Your task to perform on an android device: Add "logitech g502" to the cart on costco Image 0: 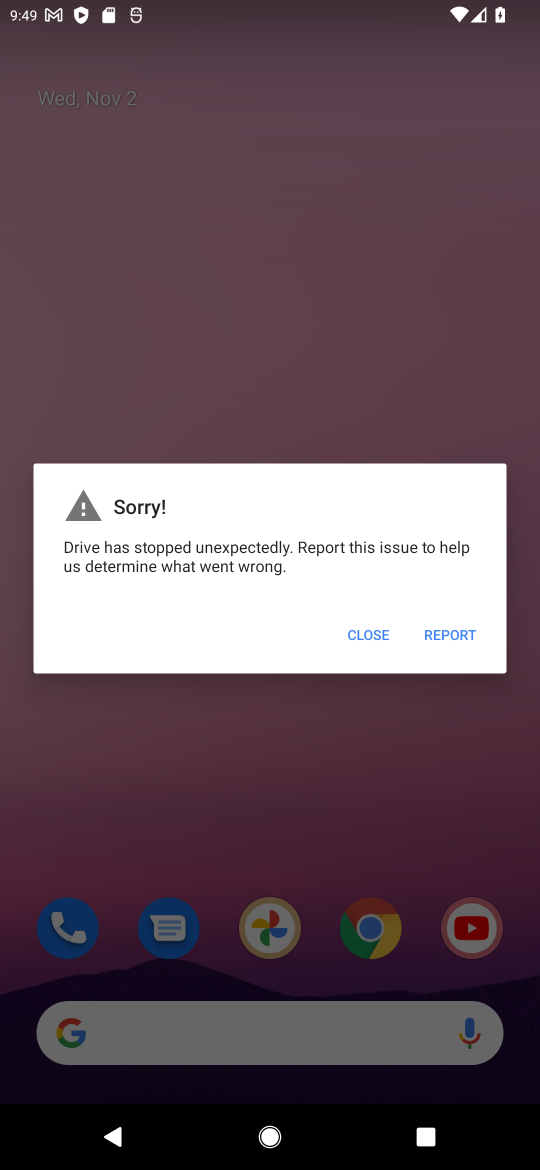
Step 0: press home button
Your task to perform on an android device: Add "logitech g502" to the cart on costco Image 1: 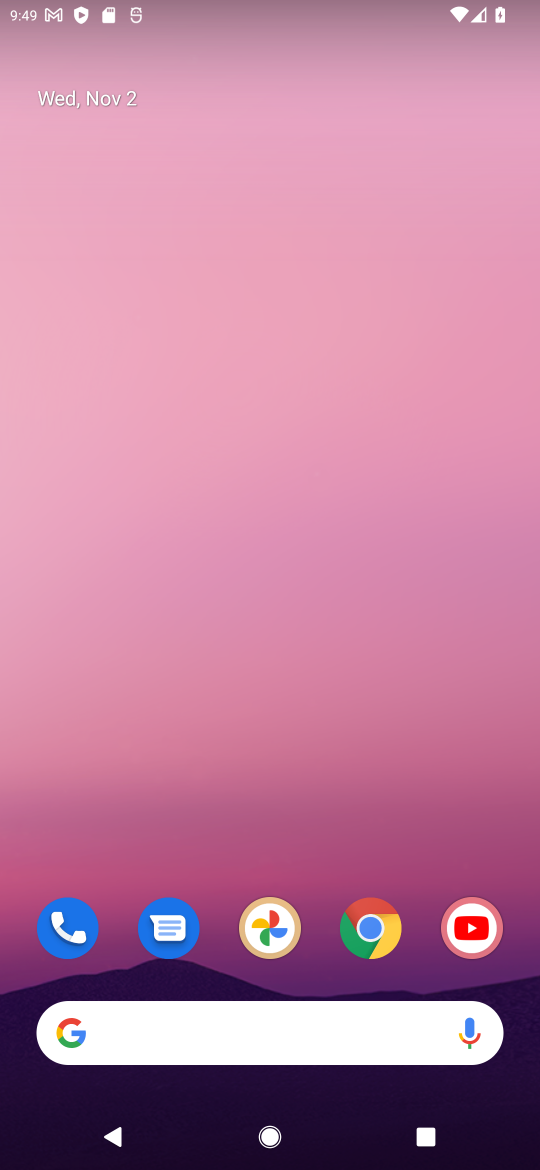
Step 1: drag from (265, 867) to (277, 352)
Your task to perform on an android device: Add "logitech g502" to the cart on costco Image 2: 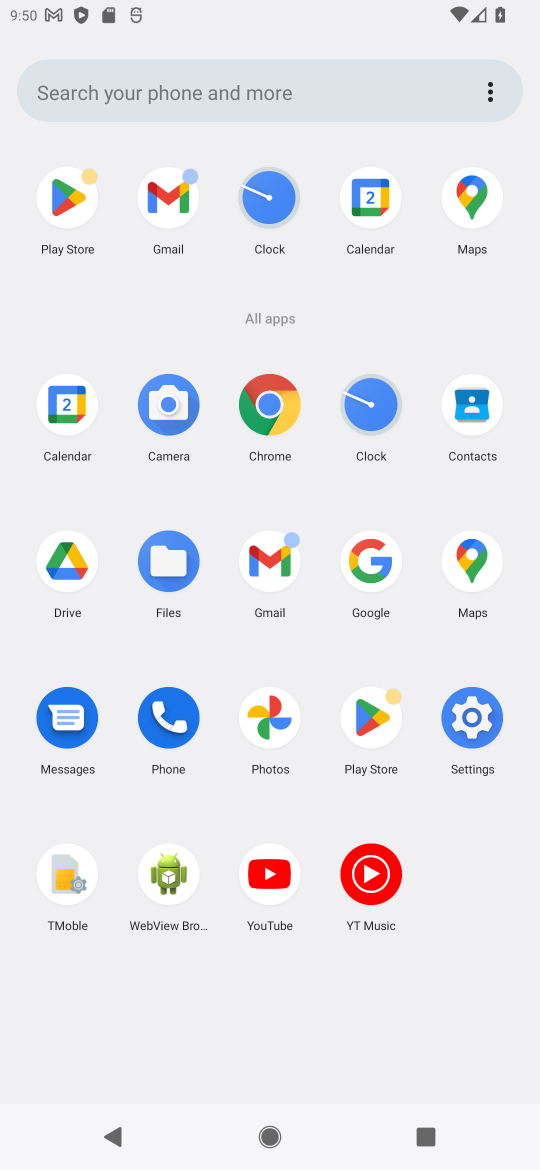
Step 2: click (377, 571)
Your task to perform on an android device: Add "logitech g502" to the cart on costco Image 3: 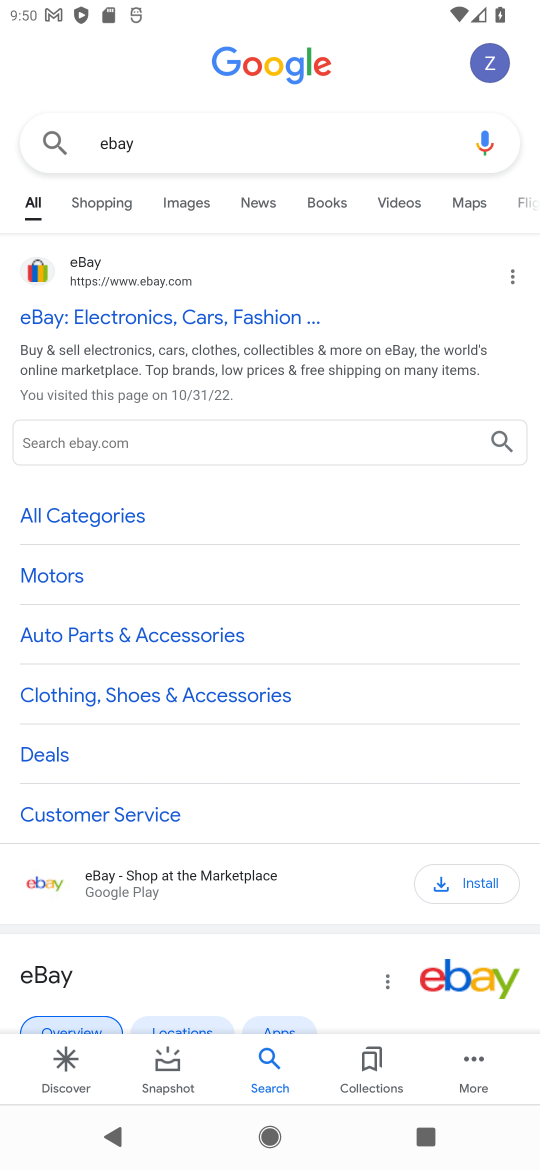
Step 3: click (91, 135)
Your task to perform on an android device: Add "logitech g502" to the cart on costco Image 4: 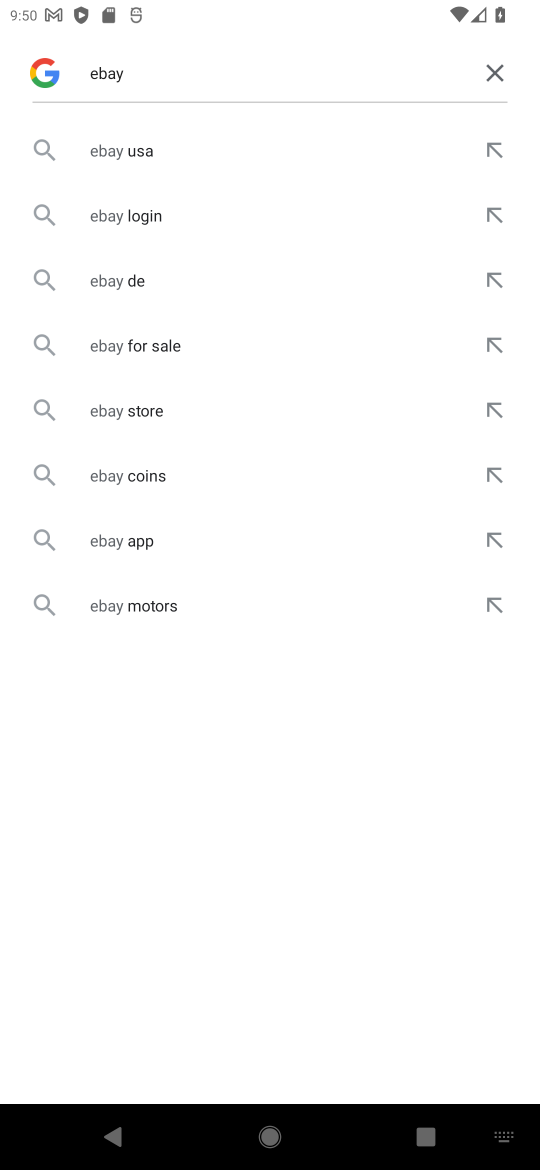
Step 4: click (500, 66)
Your task to perform on an android device: Add "logitech g502" to the cart on costco Image 5: 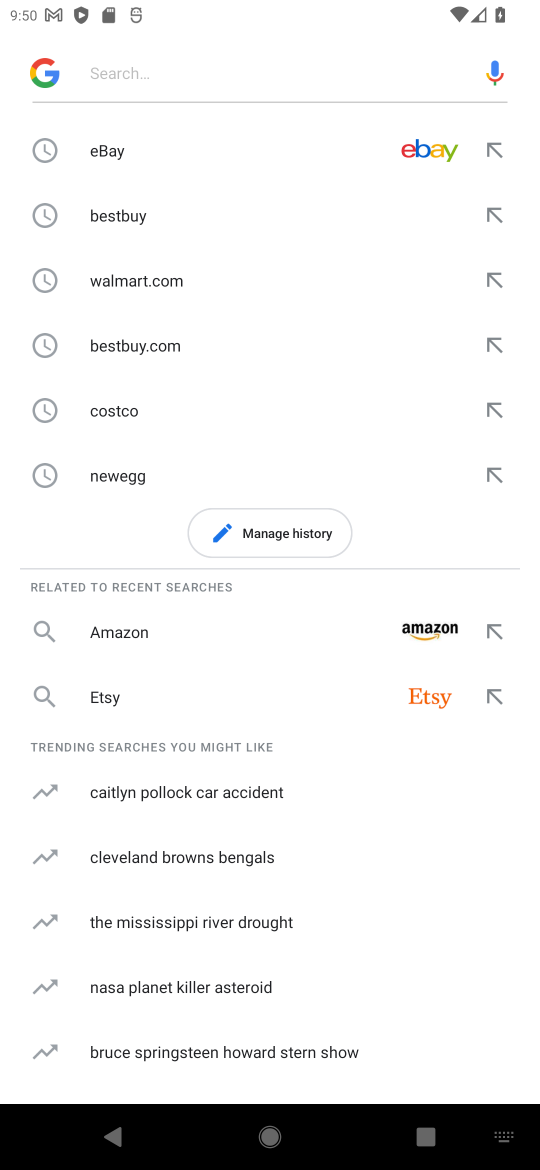
Step 5: click (134, 409)
Your task to perform on an android device: Add "logitech g502" to the cart on costco Image 6: 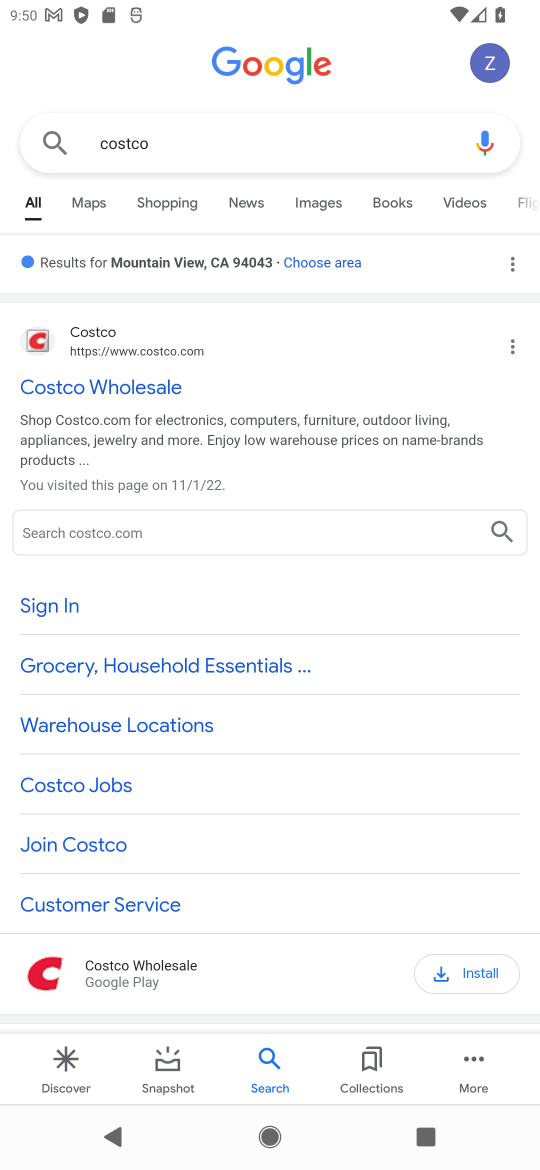
Step 6: click (120, 389)
Your task to perform on an android device: Add "logitech g502" to the cart on costco Image 7: 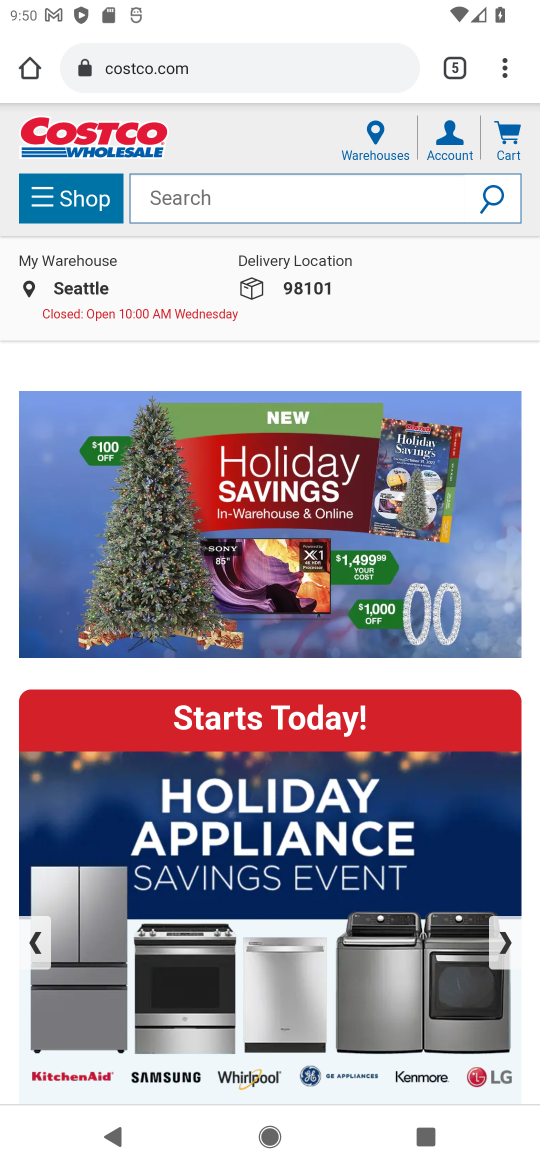
Step 7: click (336, 190)
Your task to perform on an android device: Add "logitech g502" to the cart on costco Image 8: 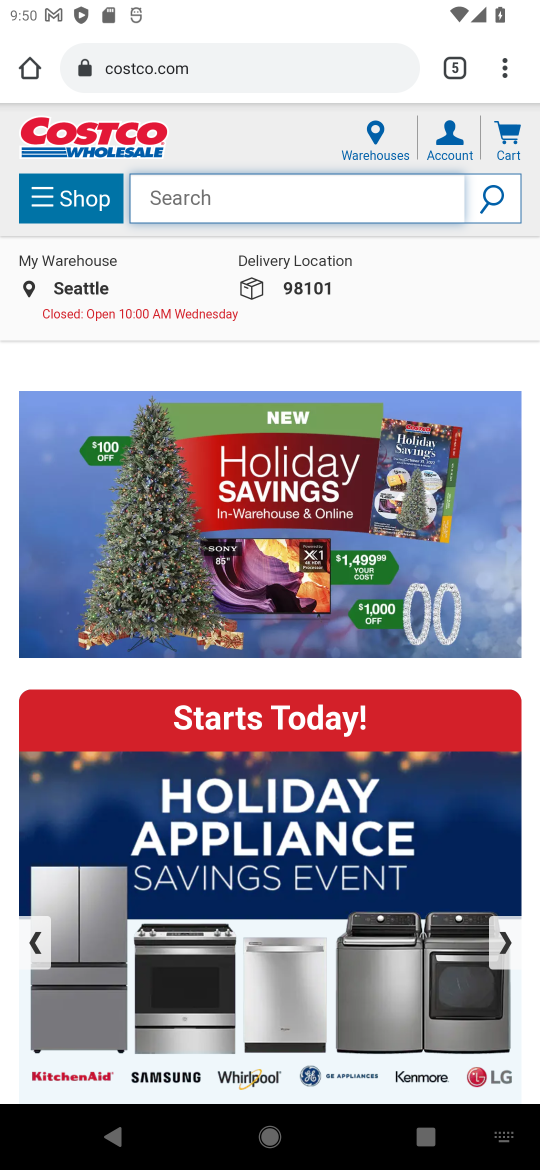
Step 8: type "logitech g502"
Your task to perform on an android device: Add "logitech g502" to the cart on costco Image 9: 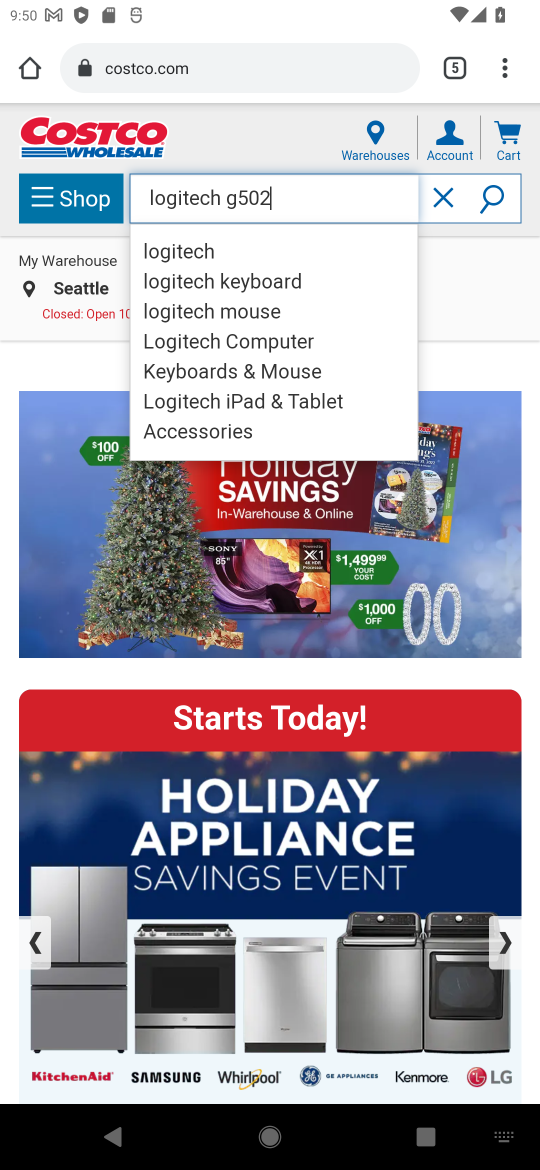
Step 9: click (199, 249)
Your task to perform on an android device: Add "logitech g502" to the cart on costco Image 10: 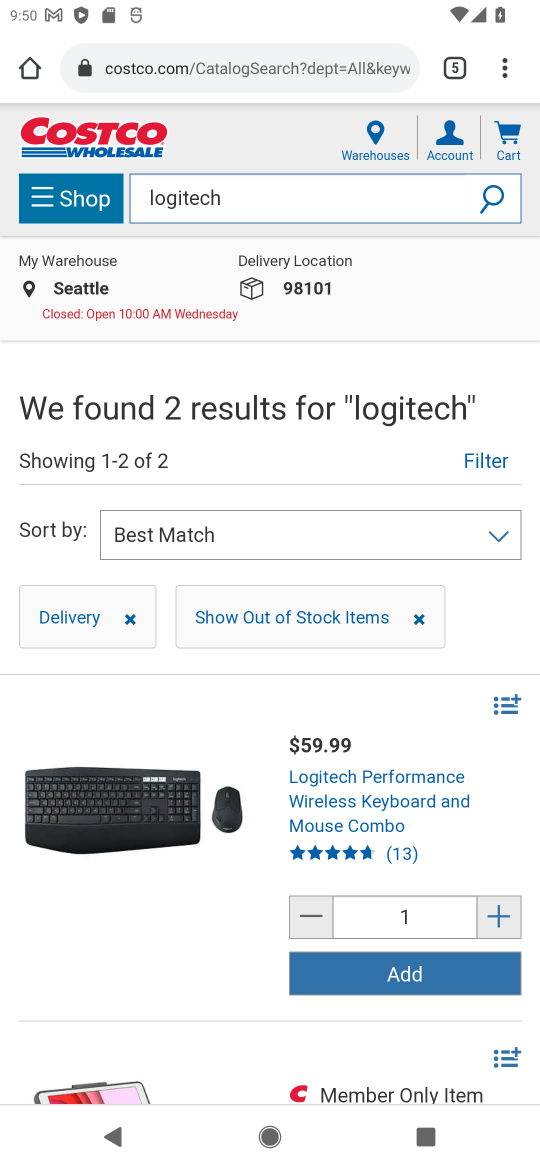
Step 10: click (402, 959)
Your task to perform on an android device: Add "logitech g502" to the cart on costco Image 11: 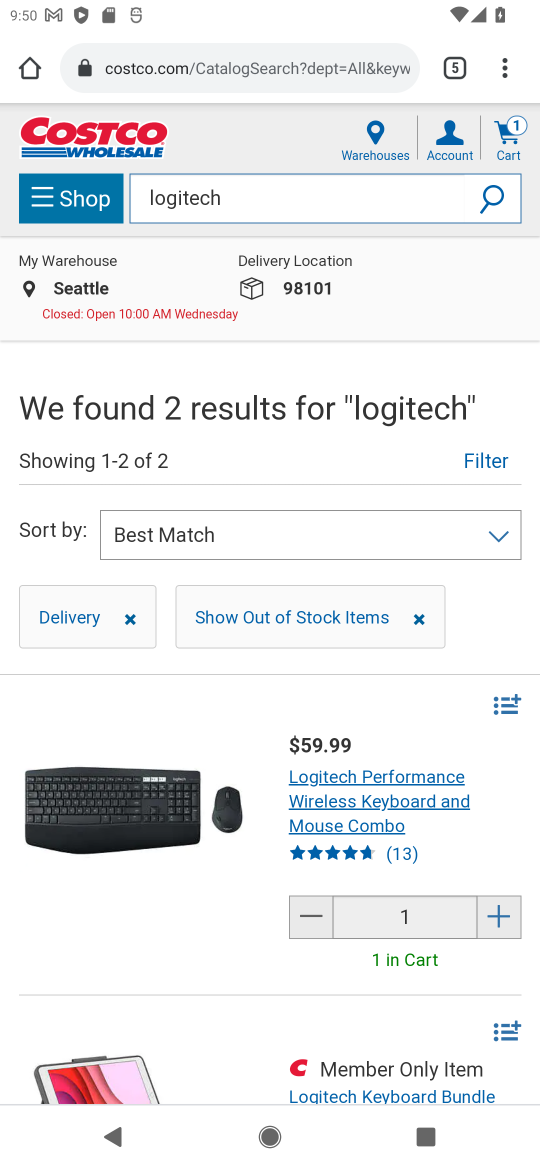
Step 11: task complete